Your task to perform on an android device: Open settings on Google Maps Image 0: 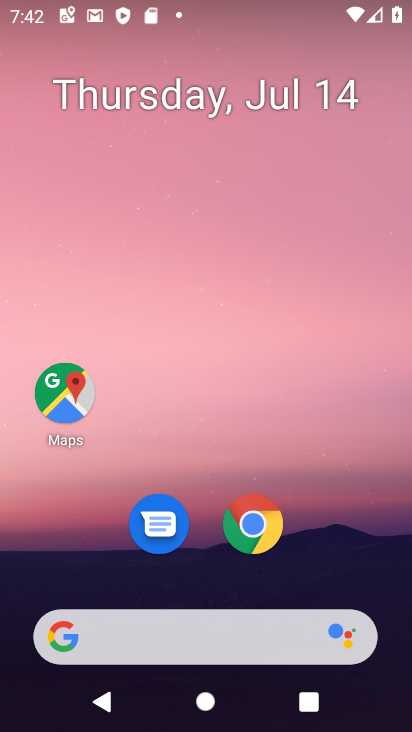
Step 0: click (74, 413)
Your task to perform on an android device: Open settings on Google Maps Image 1: 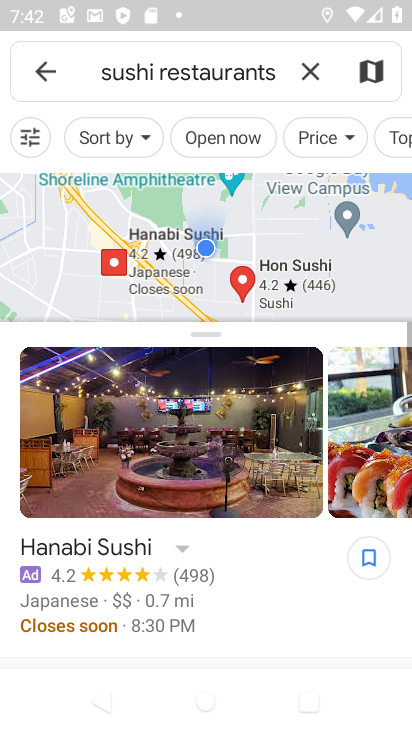
Step 1: click (309, 67)
Your task to perform on an android device: Open settings on Google Maps Image 2: 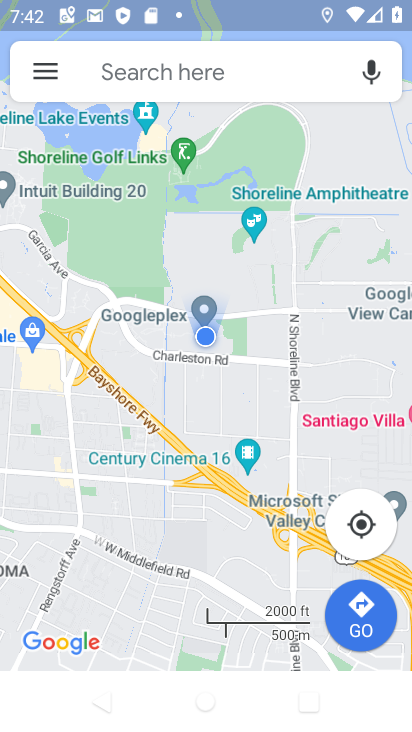
Step 2: click (45, 71)
Your task to perform on an android device: Open settings on Google Maps Image 3: 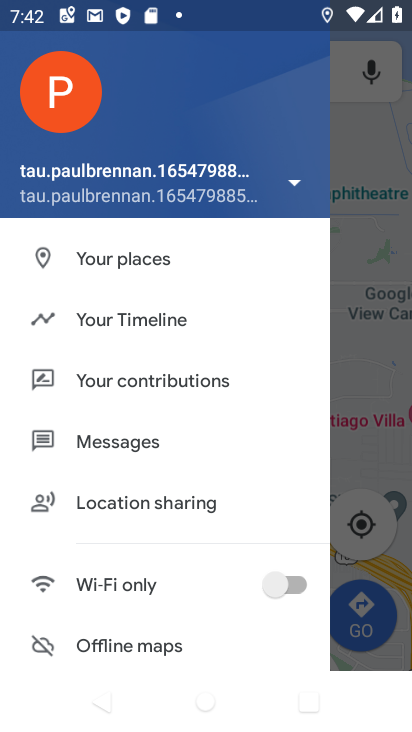
Step 3: drag from (201, 590) to (179, 77)
Your task to perform on an android device: Open settings on Google Maps Image 4: 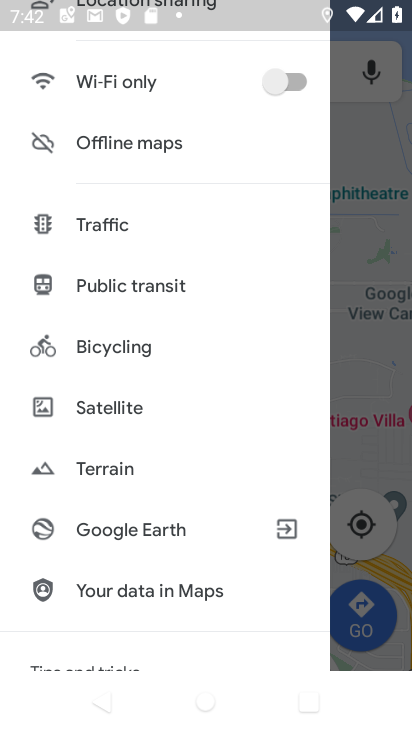
Step 4: drag from (171, 449) to (180, 118)
Your task to perform on an android device: Open settings on Google Maps Image 5: 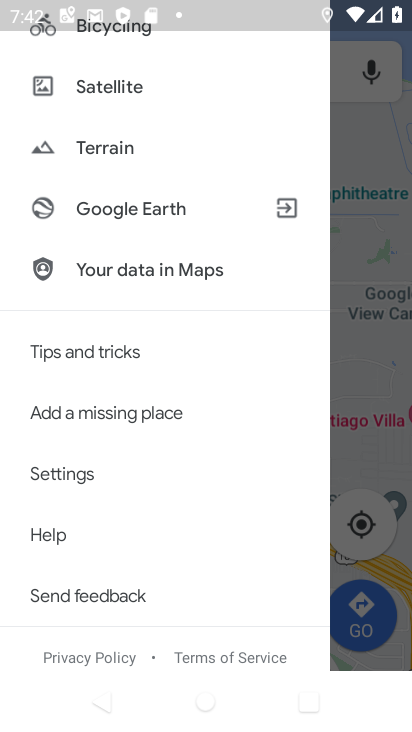
Step 5: click (80, 470)
Your task to perform on an android device: Open settings on Google Maps Image 6: 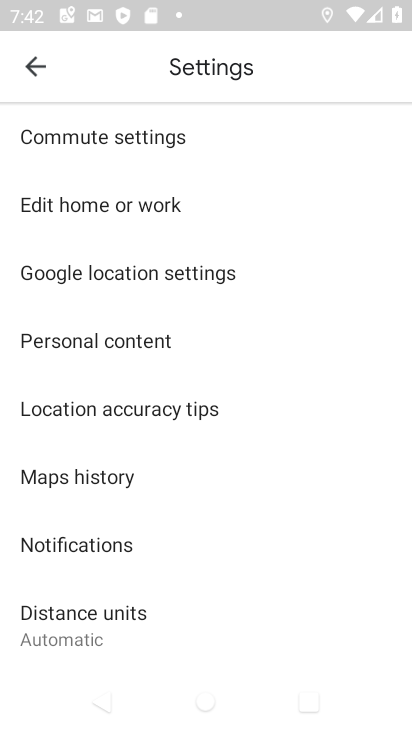
Step 6: task complete